Your task to perform on an android device: Open Youtube and go to the subscriptions tab Image 0: 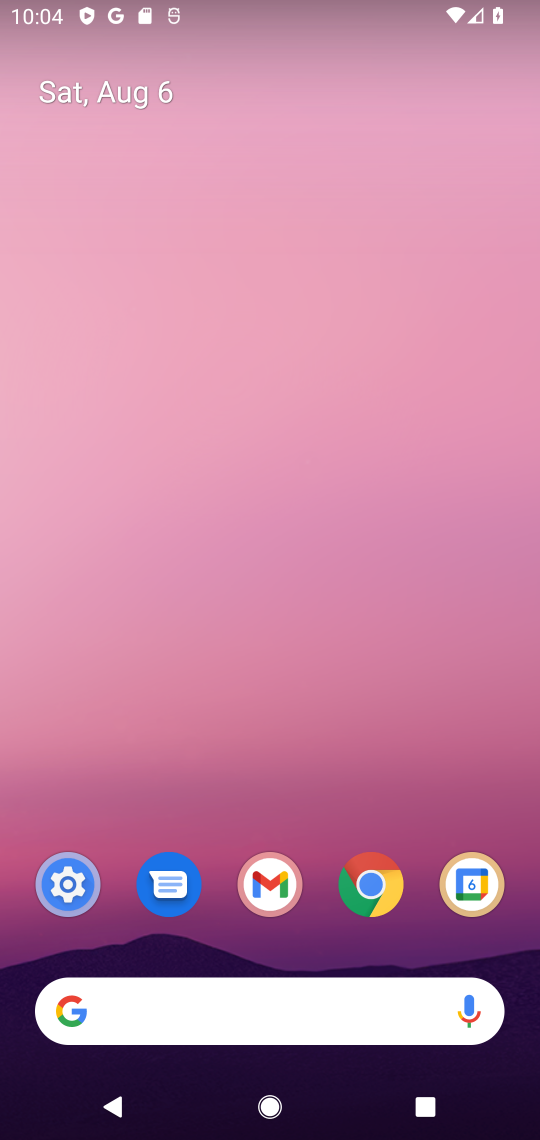
Step 0: drag from (427, 949) to (352, 64)
Your task to perform on an android device: Open Youtube and go to the subscriptions tab Image 1: 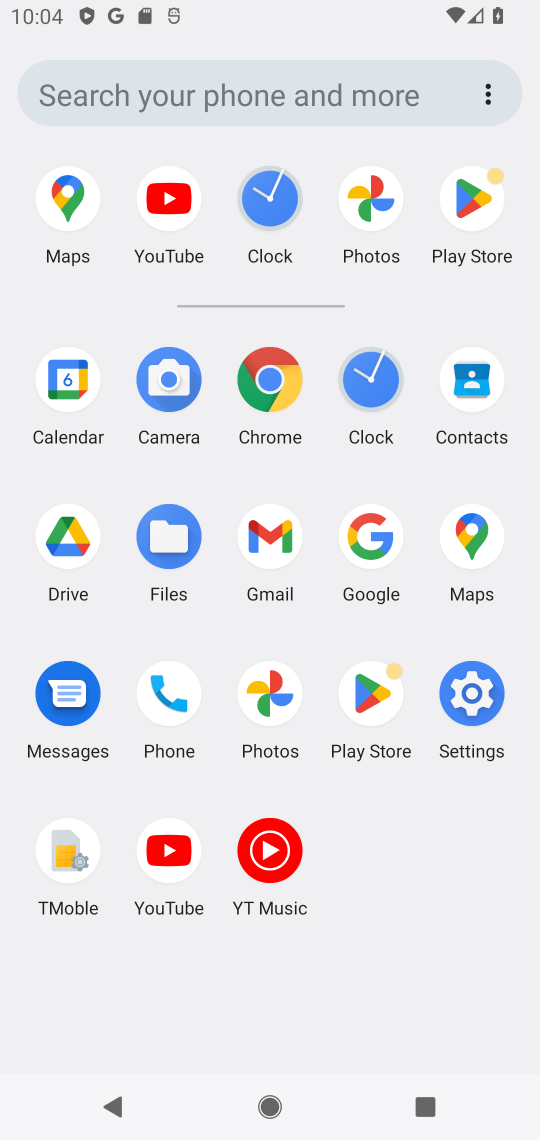
Step 1: click (164, 849)
Your task to perform on an android device: Open Youtube and go to the subscriptions tab Image 2: 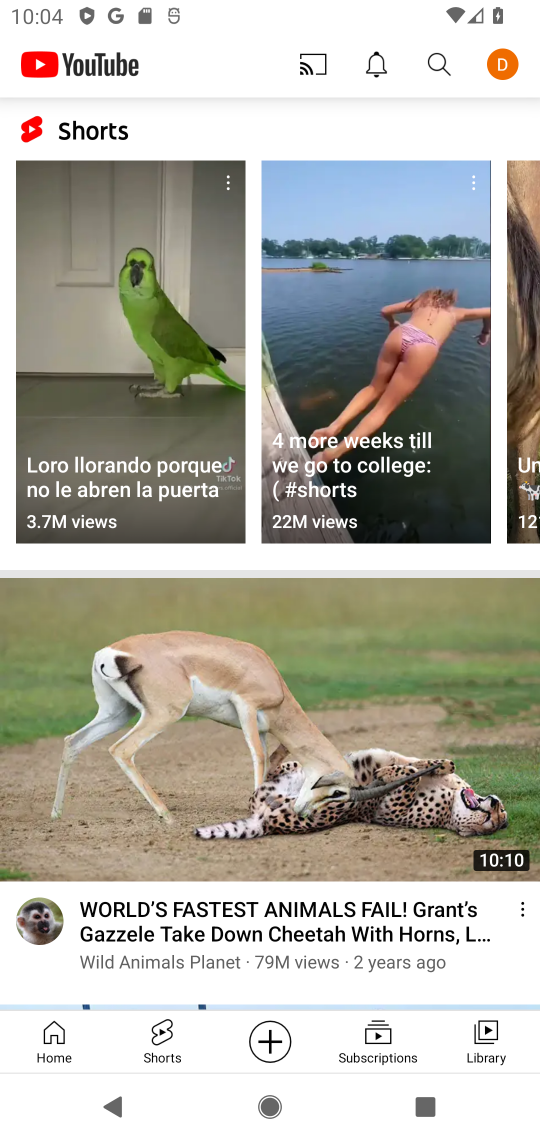
Step 2: click (376, 1013)
Your task to perform on an android device: Open Youtube and go to the subscriptions tab Image 3: 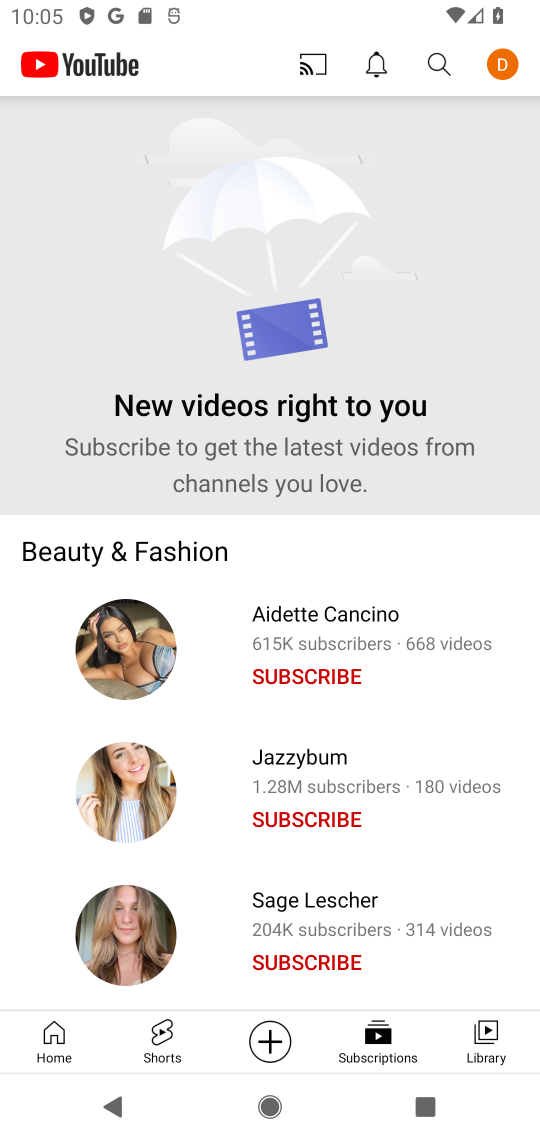
Step 3: task complete